Your task to perform on an android device: toggle translation in the chrome app Image 0: 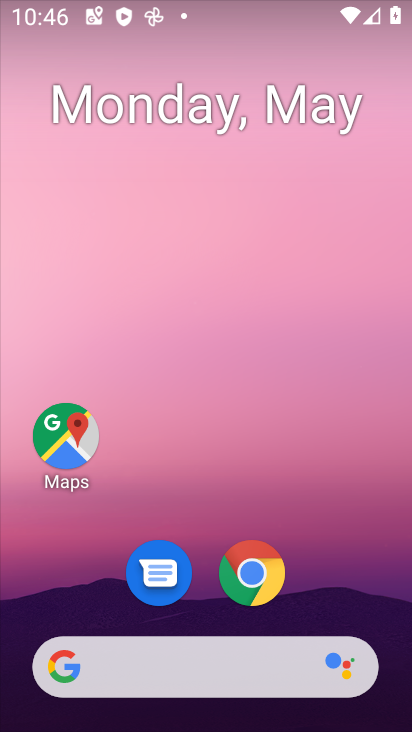
Step 0: click (274, 575)
Your task to perform on an android device: toggle translation in the chrome app Image 1: 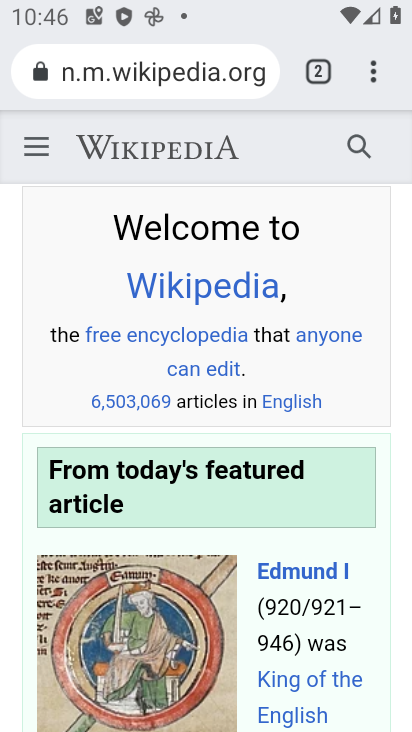
Step 1: click (373, 75)
Your task to perform on an android device: toggle translation in the chrome app Image 2: 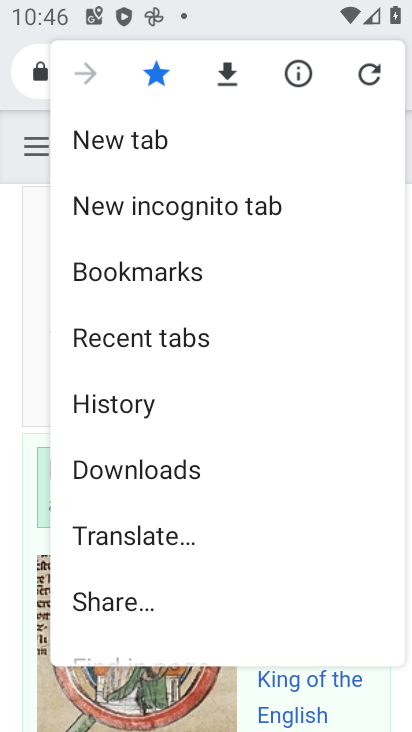
Step 2: drag from (228, 572) to (226, 153)
Your task to perform on an android device: toggle translation in the chrome app Image 3: 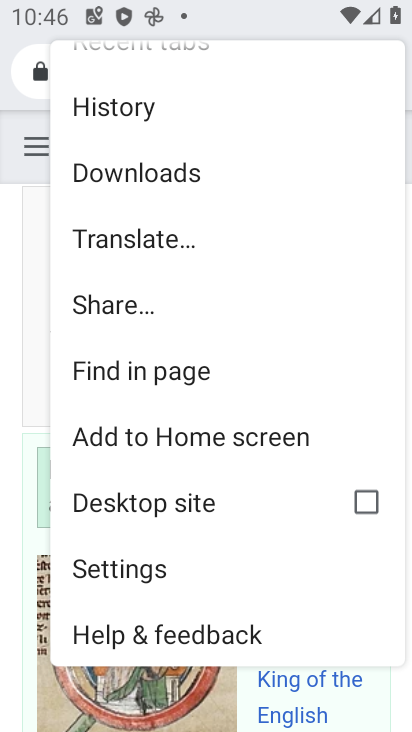
Step 3: click (145, 549)
Your task to perform on an android device: toggle translation in the chrome app Image 4: 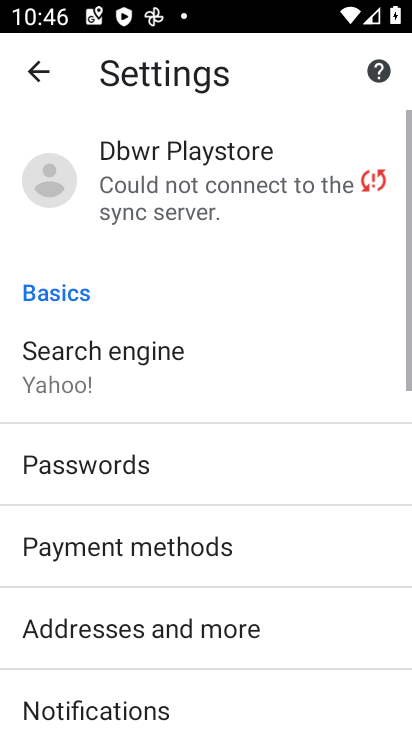
Step 4: drag from (198, 588) to (179, 252)
Your task to perform on an android device: toggle translation in the chrome app Image 5: 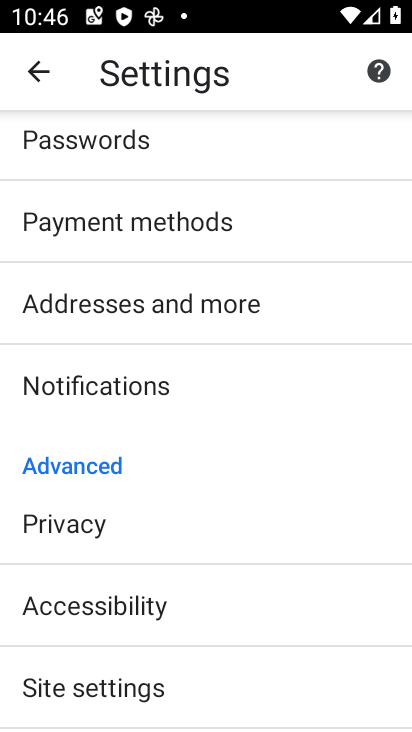
Step 5: drag from (130, 632) to (147, 367)
Your task to perform on an android device: toggle translation in the chrome app Image 6: 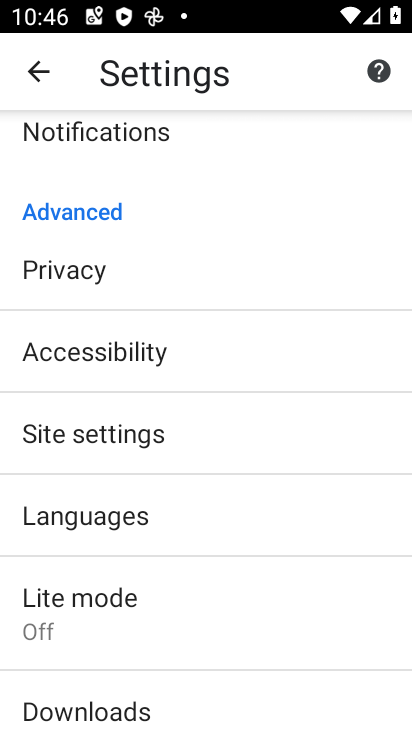
Step 6: click (252, 523)
Your task to perform on an android device: toggle translation in the chrome app Image 7: 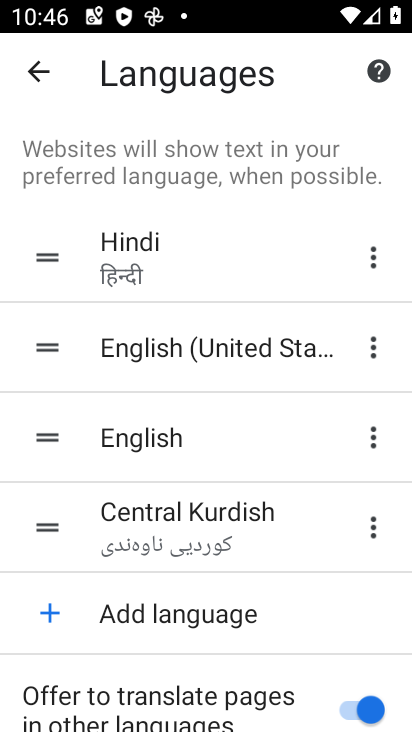
Step 7: click (355, 675)
Your task to perform on an android device: toggle translation in the chrome app Image 8: 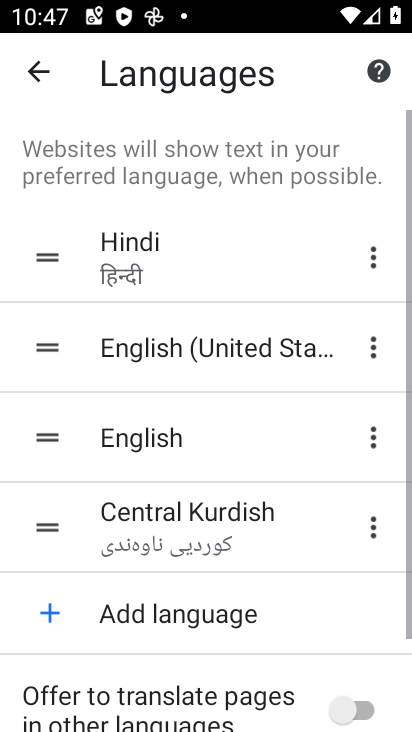
Step 8: task complete